Your task to perform on an android device: empty trash in the gmail app Image 0: 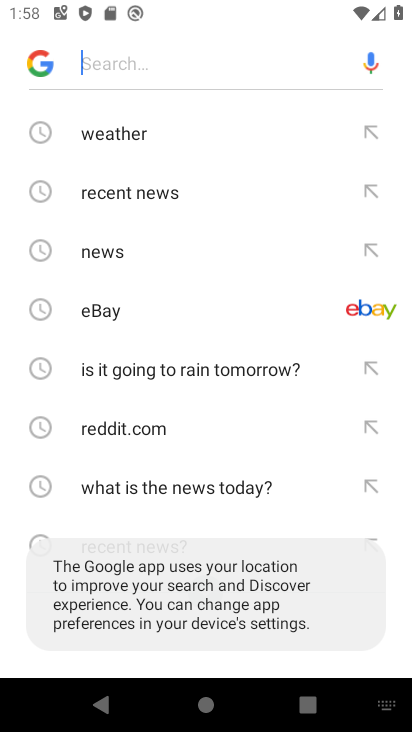
Step 0: press home button
Your task to perform on an android device: empty trash in the gmail app Image 1: 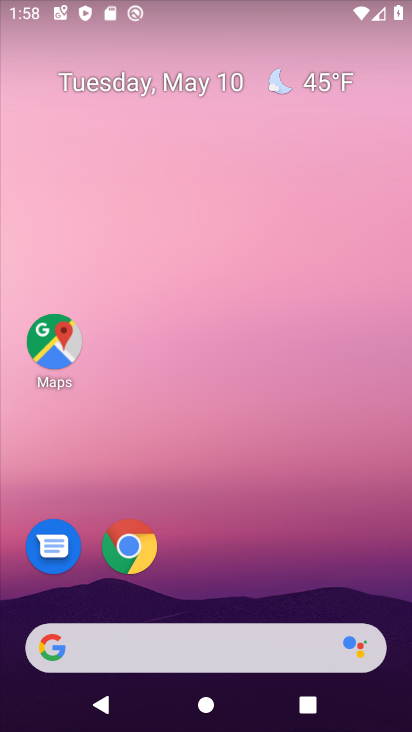
Step 1: drag from (286, 584) to (309, 88)
Your task to perform on an android device: empty trash in the gmail app Image 2: 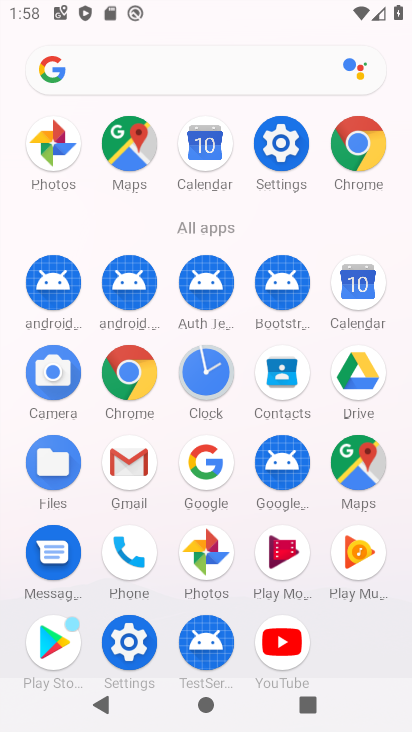
Step 2: click (129, 482)
Your task to perform on an android device: empty trash in the gmail app Image 3: 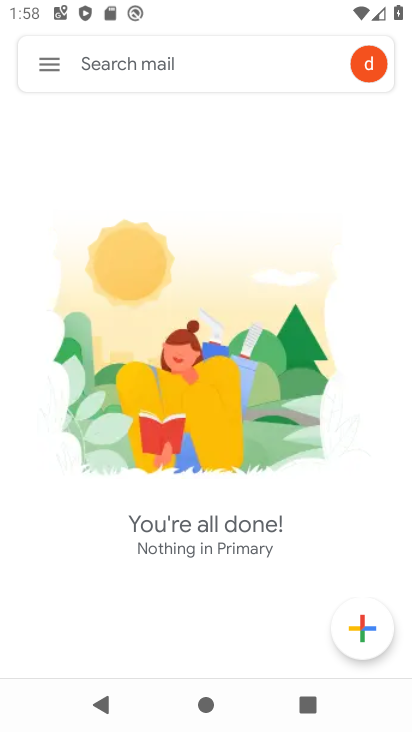
Step 3: click (52, 63)
Your task to perform on an android device: empty trash in the gmail app Image 4: 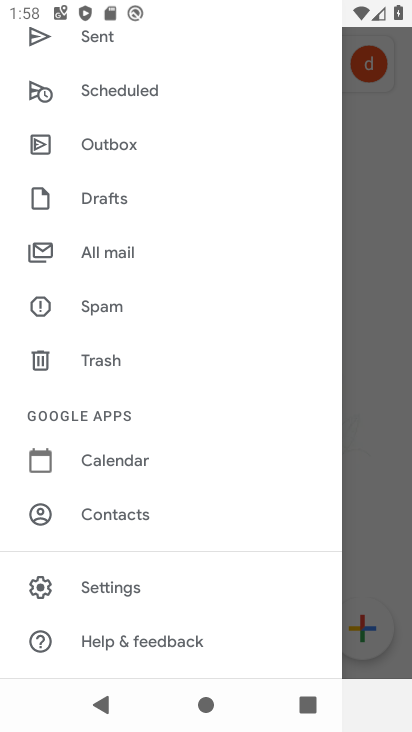
Step 4: click (124, 367)
Your task to perform on an android device: empty trash in the gmail app Image 5: 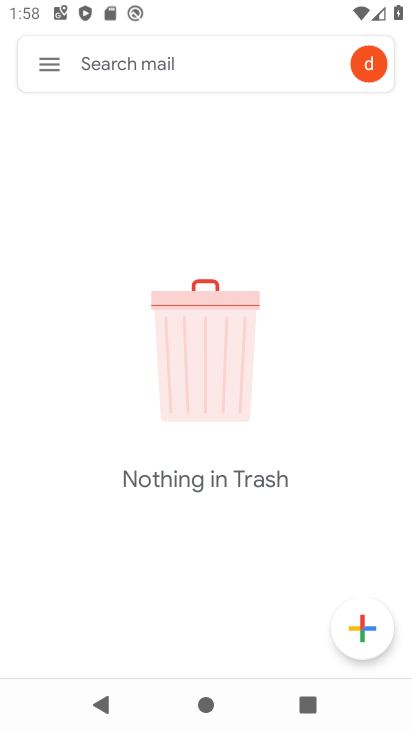
Step 5: task complete